Your task to perform on an android device: toggle sleep mode Image 0: 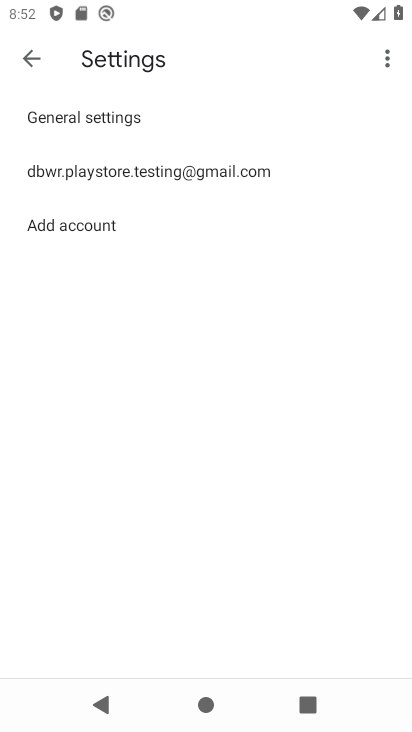
Step 0: press home button
Your task to perform on an android device: toggle sleep mode Image 1: 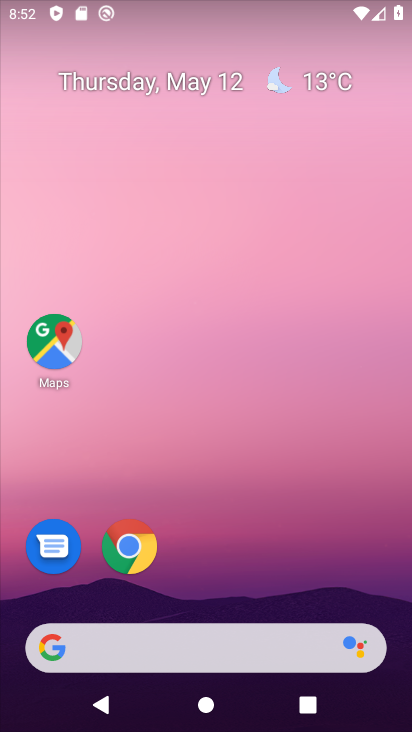
Step 1: drag from (227, 557) to (290, 12)
Your task to perform on an android device: toggle sleep mode Image 2: 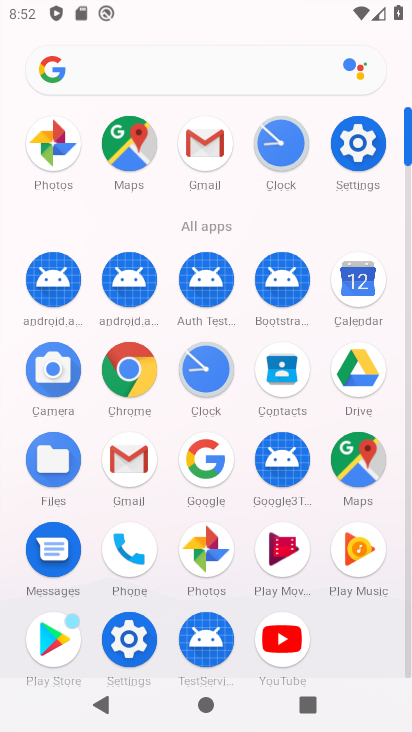
Step 2: click (140, 637)
Your task to perform on an android device: toggle sleep mode Image 3: 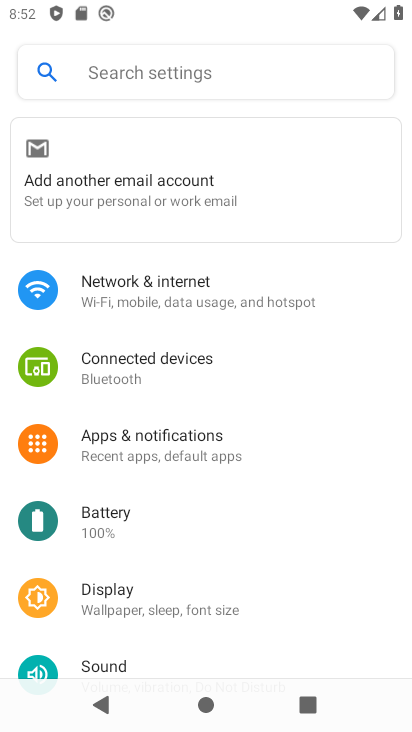
Step 3: drag from (326, 619) to (358, 256)
Your task to perform on an android device: toggle sleep mode Image 4: 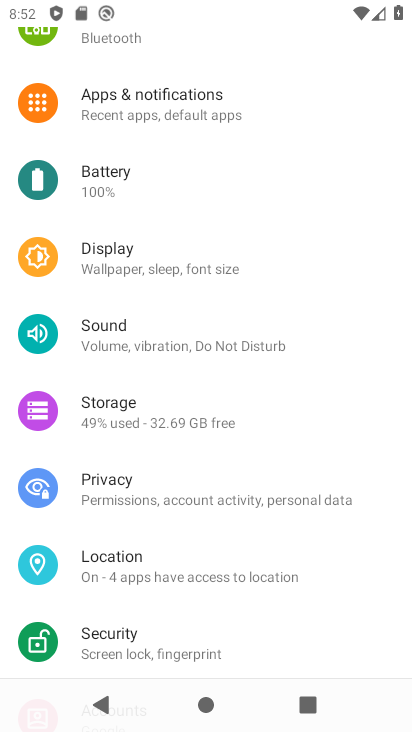
Step 4: click (166, 267)
Your task to perform on an android device: toggle sleep mode Image 5: 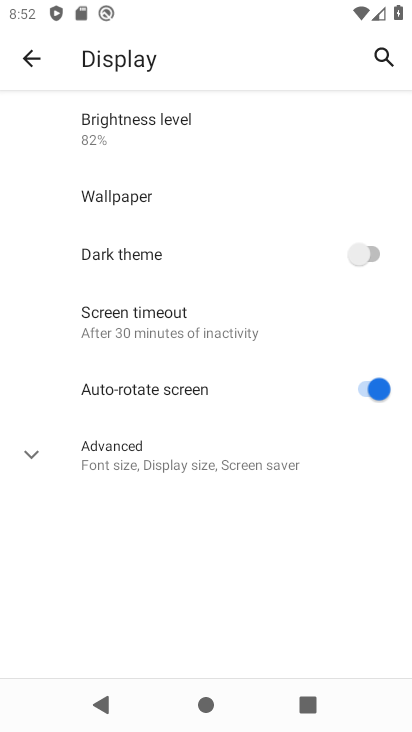
Step 5: task complete